Your task to perform on an android device: Go to calendar. Show me events next week Image 0: 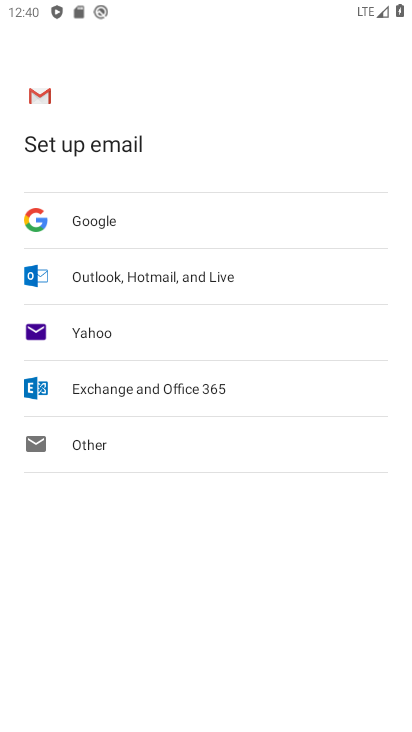
Step 0: press home button
Your task to perform on an android device: Go to calendar. Show me events next week Image 1: 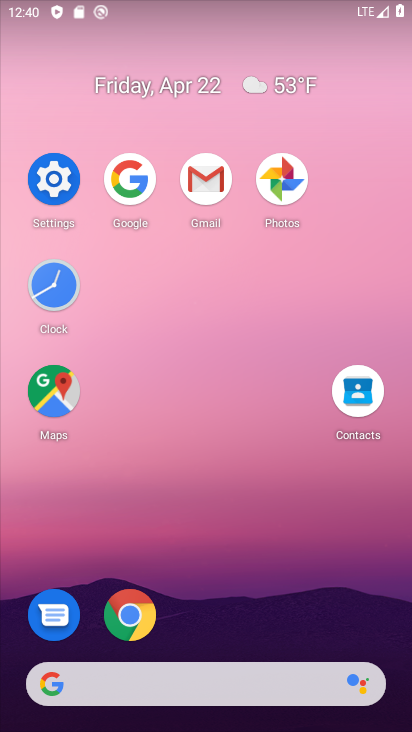
Step 1: drag from (200, 623) to (240, 200)
Your task to perform on an android device: Go to calendar. Show me events next week Image 2: 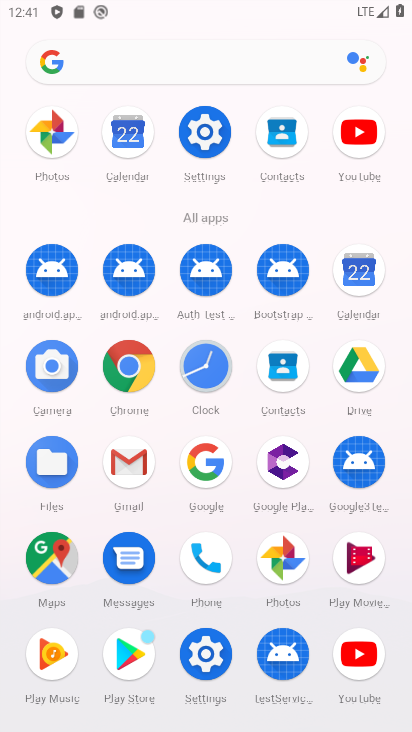
Step 2: drag from (357, 280) to (145, 288)
Your task to perform on an android device: Go to calendar. Show me events next week Image 3: 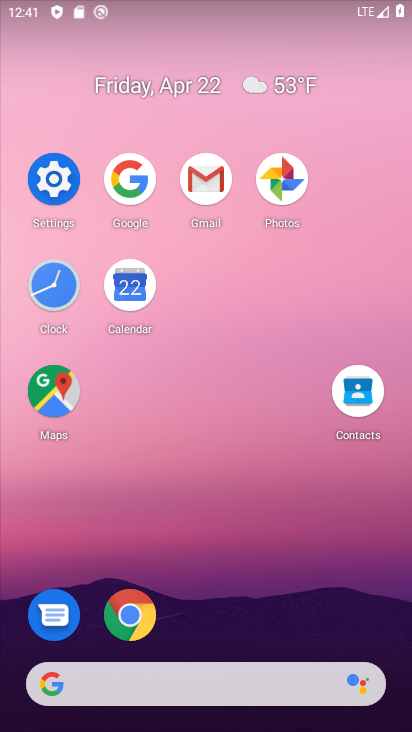
Step 3: click (131, 282)
Your task to perform on an android device: Go to calendar. Show me events next week Image 4: 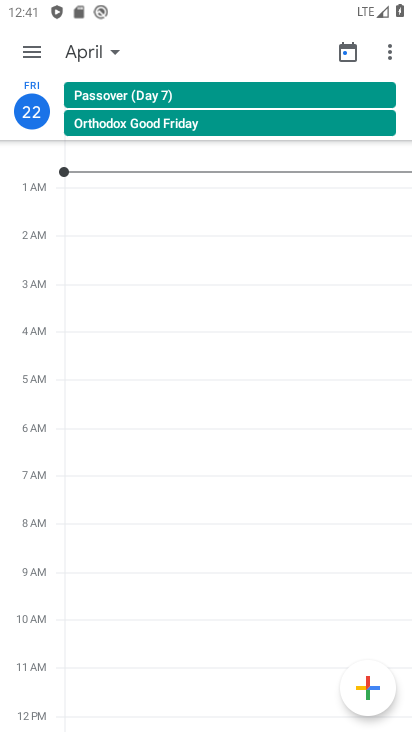
Step 4: click (34, 62)
Your task to perform on an android device: Go to calendar. Show me events next week Image 5: 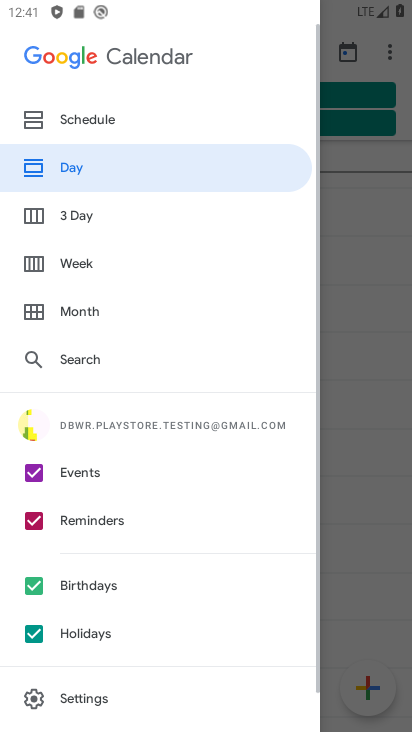
Step 5: click (88, 266)
Your task to perform on an android device: Go to calendar. Show me events next week Image 6: 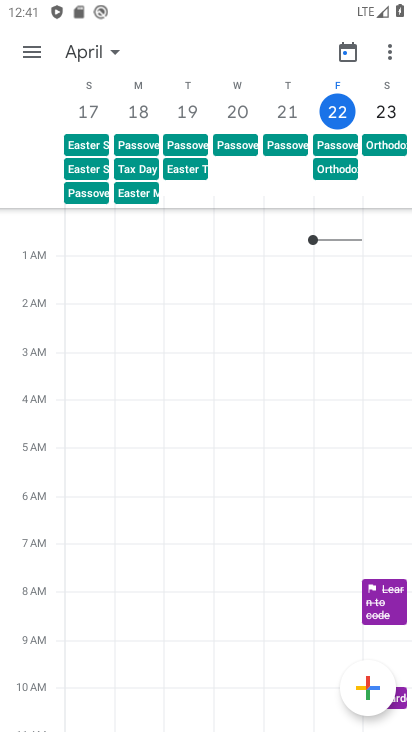
Step 6: task complete